Your task to perform on an android device: read, delete, or share a saved page in the chrome app Image 0: 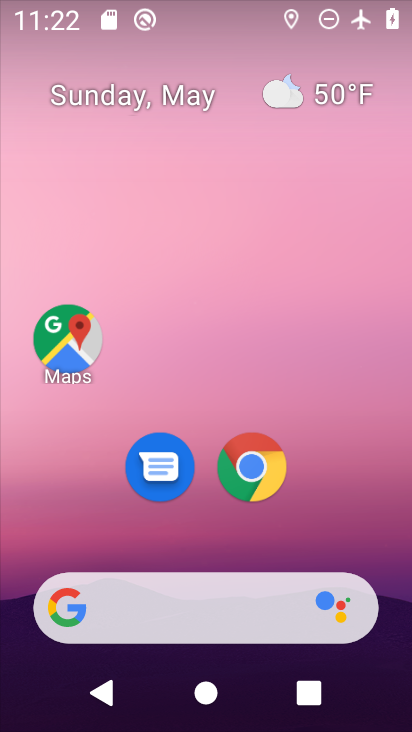
Step 0: click (258, 489)
Your task to perform on an android device: read, delete, or share a saved page in the chrome app Image 1: 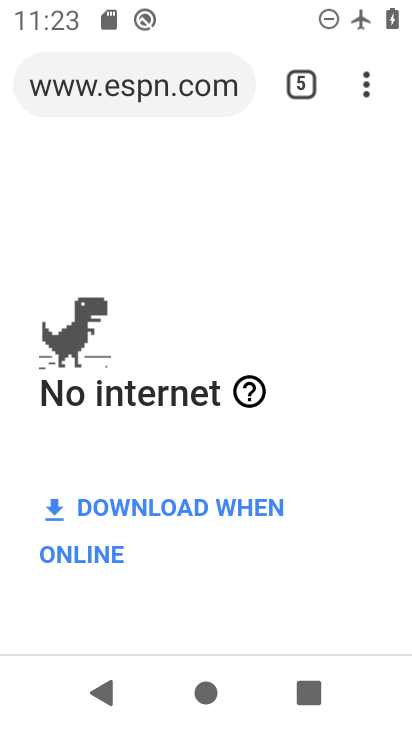
Step 1: drag from (366, 101) to (155, 531)
Your task to perform on an android device: read, delete, or share a saved page in the chrome app Image 2: 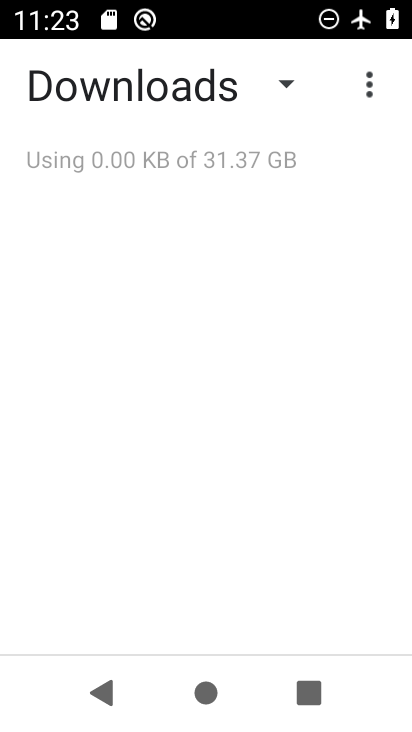
Step 2: click (285, 82)
Your task to perform on an android device: read, delete, or share a saved page in the chrome app Image 3: 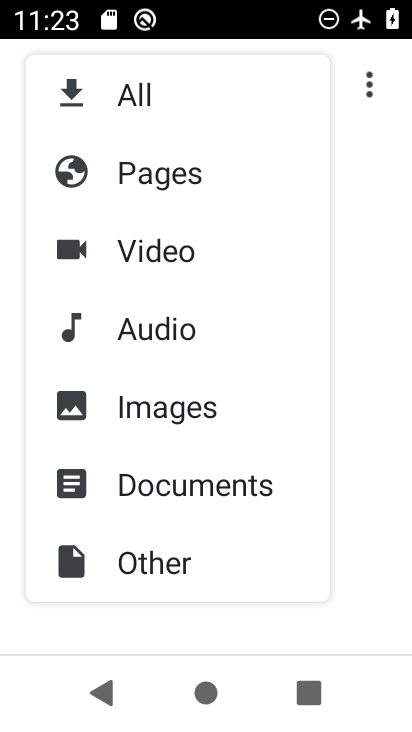
Step 3: click (173, 179)
Your task to perform on an android device: read, delete, or share a saved page in the chrome app Image 4: 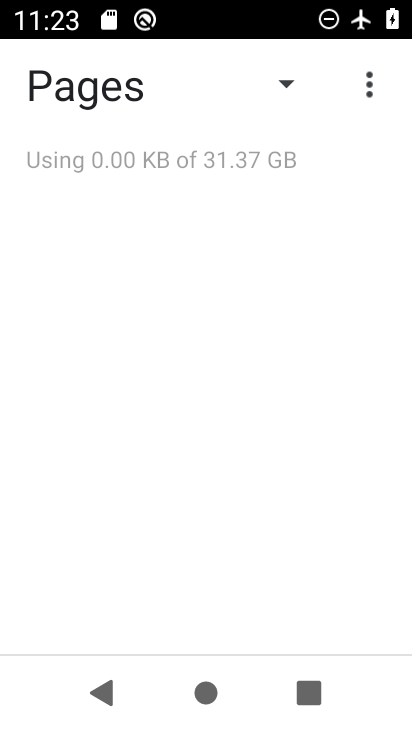
Step 4: task complete